Your task to perform on an android device: Open calendar and show me the first week of next month Image 0: 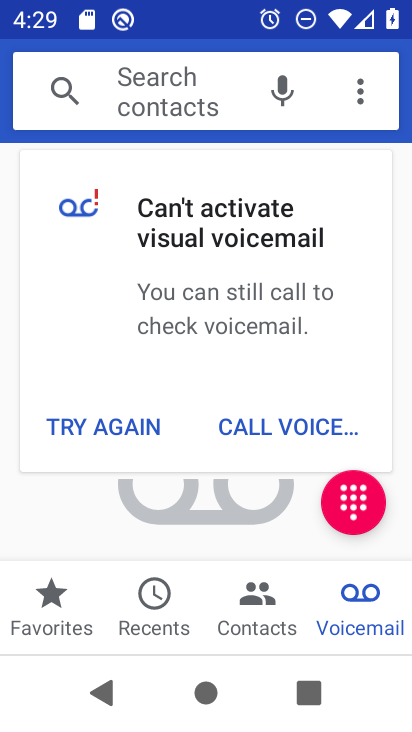
Step 0: press home button
Your task to perform on an android device: Open calendar and show me the first week of next month Image 1: 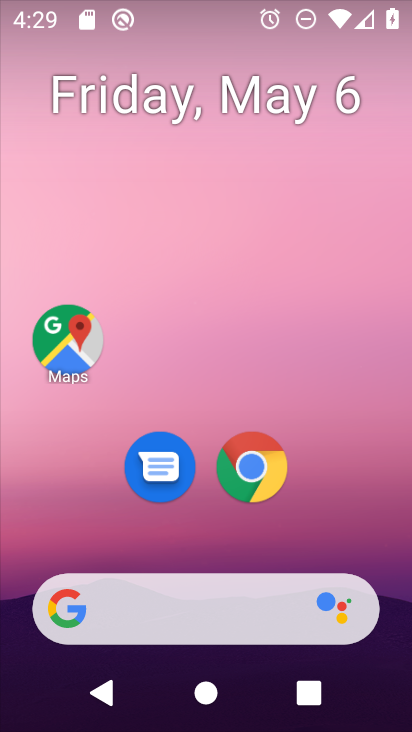
Step 1: drag from (334, 433) to (304, 143)
Your task to perform on an android device: Open calendar and show me the first week of next month Image 2: 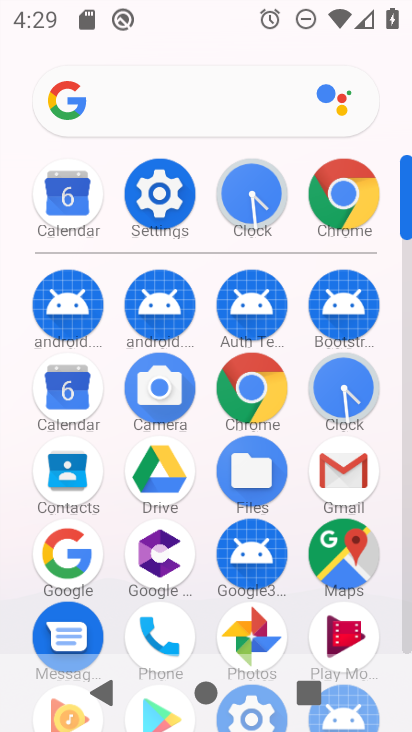
Step 2: click (76, 407)
Your task to perform on an android device: Open calendar and show me the first week of next month Image 3: 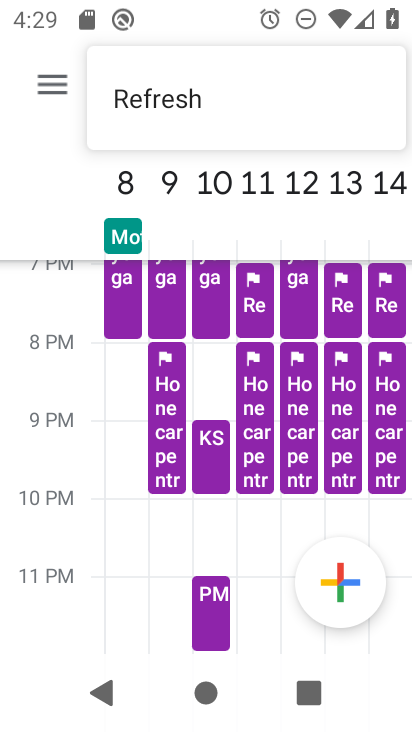
Step 3: click (59, 95)
Your task to perform on an android device: Open calendar and show me the first week of next month Image 4: 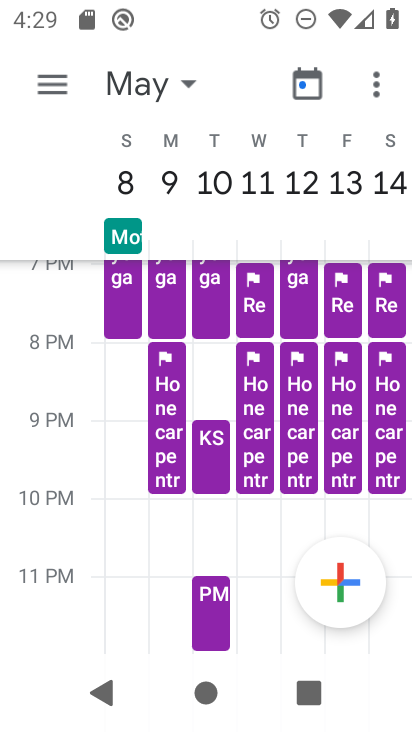
Step 4: click (70, 79)
Your task to perform on an android device: Open calendar and show me the first week of next month Image 5: 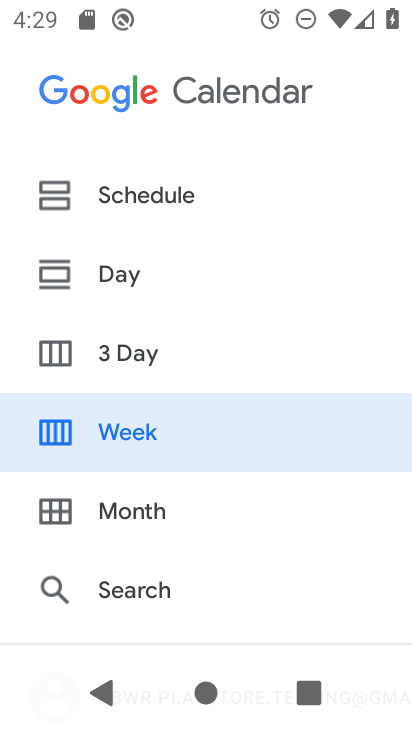
Step 5: click (122, 434)
Your task to perform on an android device: Open calendar and show me the first week of next month Image 6: 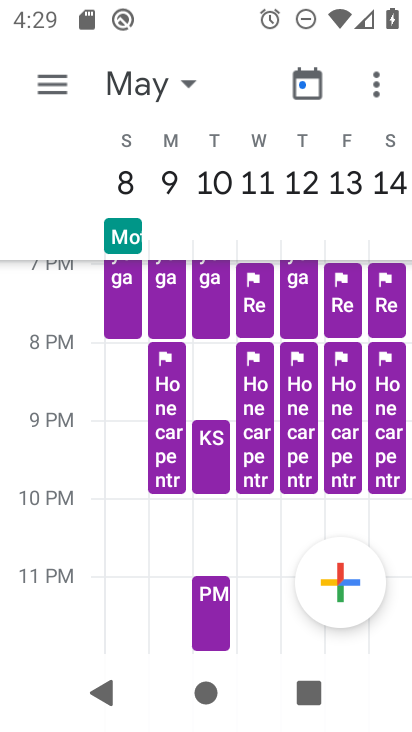
Step 6: click (137, 85)
Your task to perform on an android device: Open calendar and show me the first week of next month Image 7: 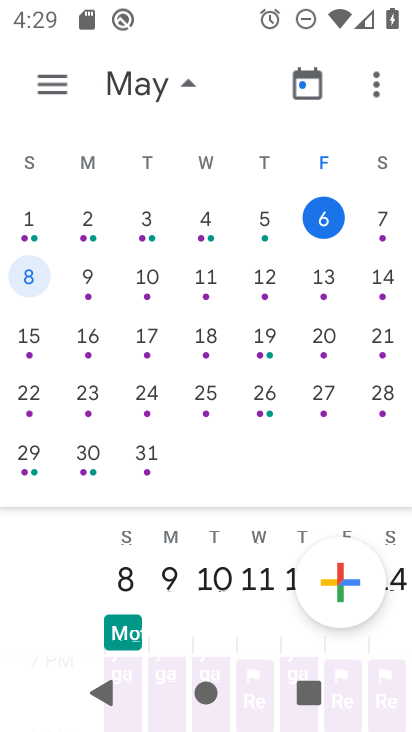
Step 7: drag from (350, 325) to (33, 365)
Your task to perform on an android device: Open calendar and show me the first week of next month Image 8: 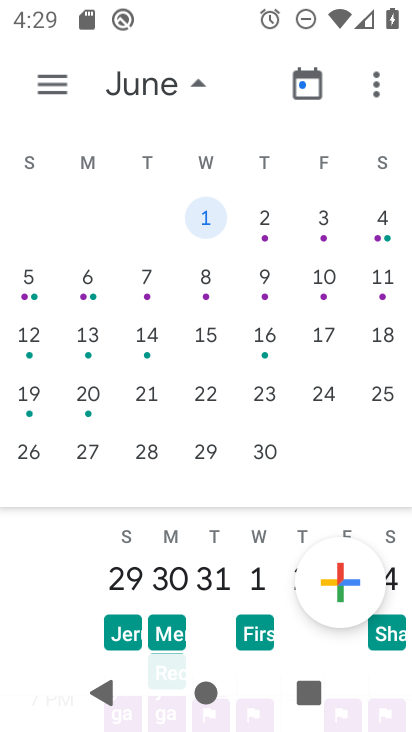
Step 8: click (25, 283)
Your task to perform on an android device: Open calendar and show me the first week of next month Image 9: 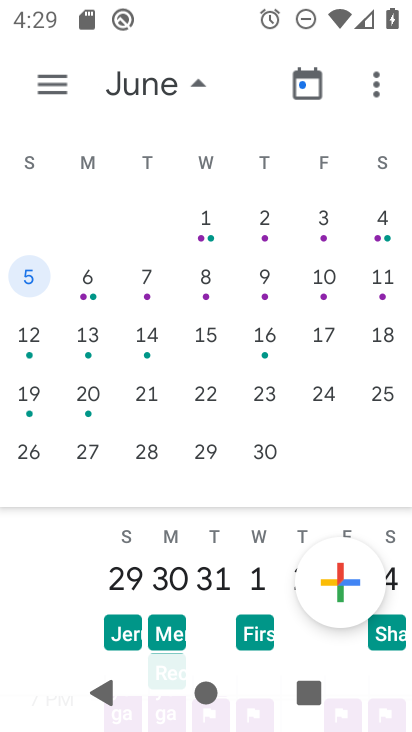
Step 9: click (25, 283)
Your task to perform on an android device: Open calendar and show me the first week of next month Image 10: 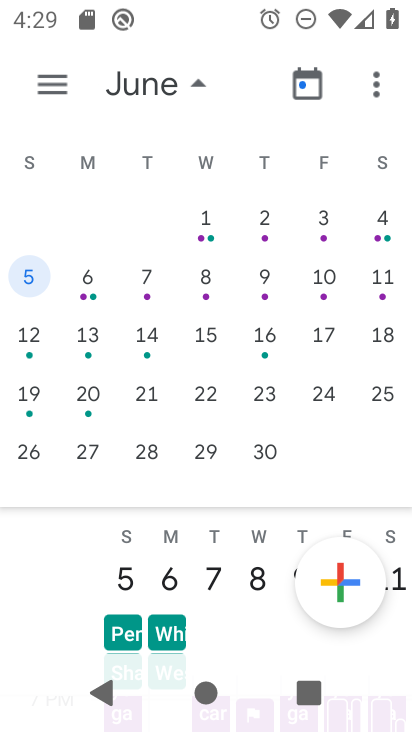
Step 10: task complete